Your task to perform on an android device: delete location history Image 0: 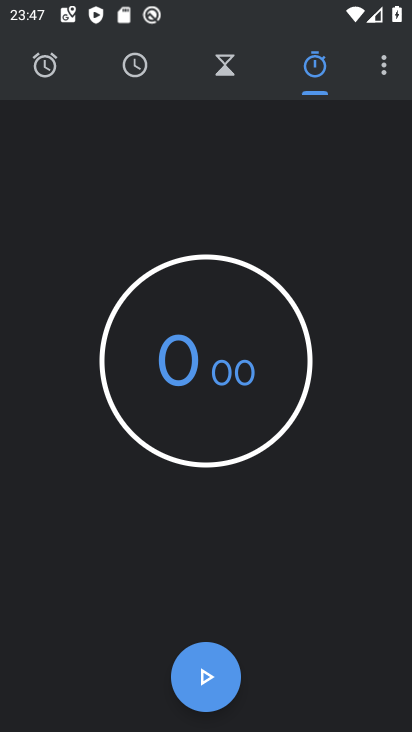
Step 0: press home button
Your task to perform on an android device: delete location history Image 1: 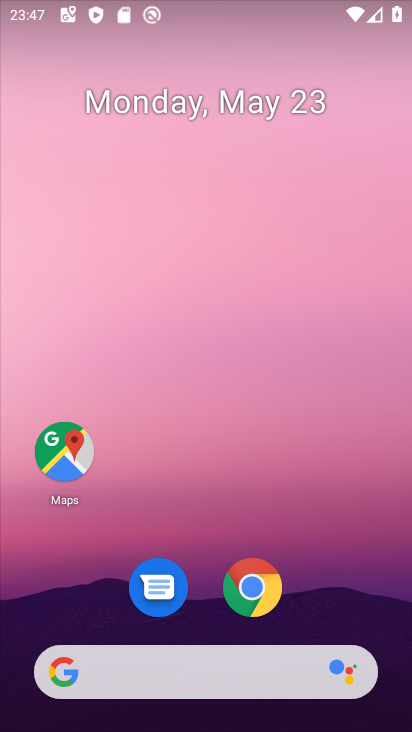
Step 1: drag from (371, 623) to (298, 192)
Your task to perform on an android device: delete location history Image 2: 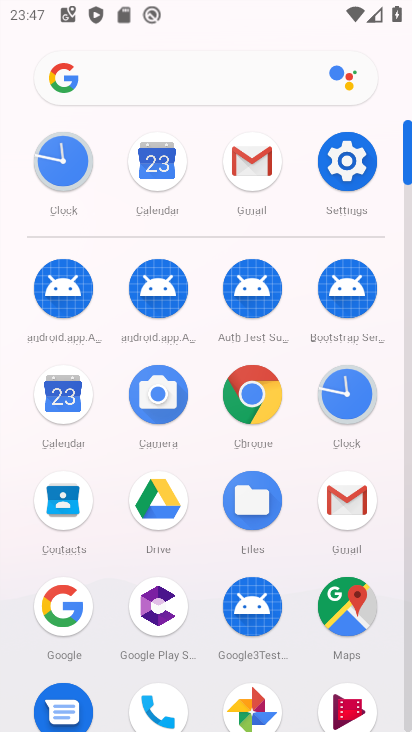
Step 2: click (364, 619)
Your task to perform on an android device: delete location history Image 3: 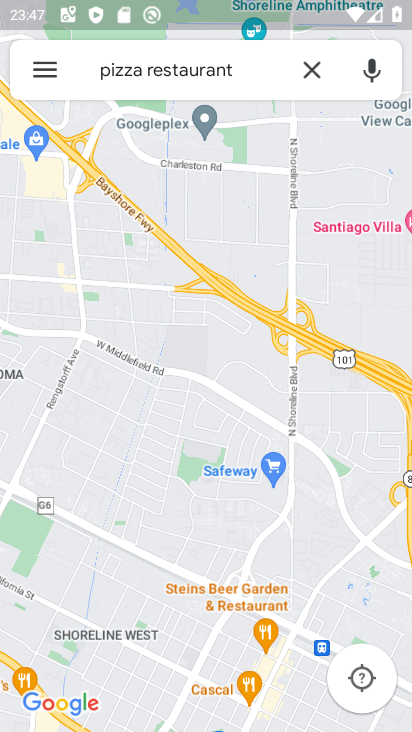
Step 3: click (49, 85)
Your task to perform on an android device: delete location history Image 4: 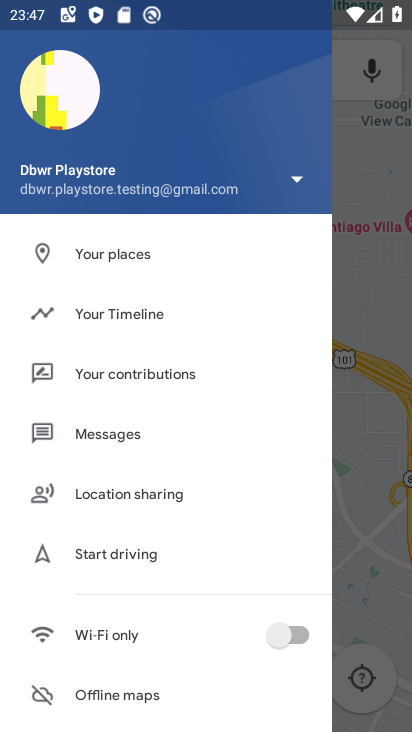
Step 4: click (156, 308)
Your task to perform on an android device: delete location history Image 5: 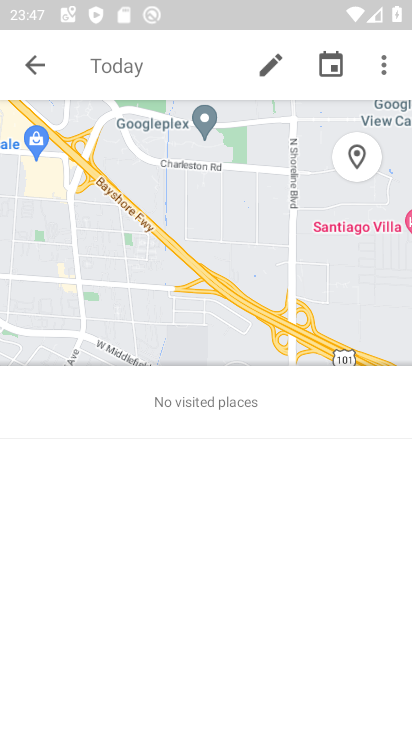
Step 5: click (385, 78)
Your task to perform on an android device: delete location history Image 6: 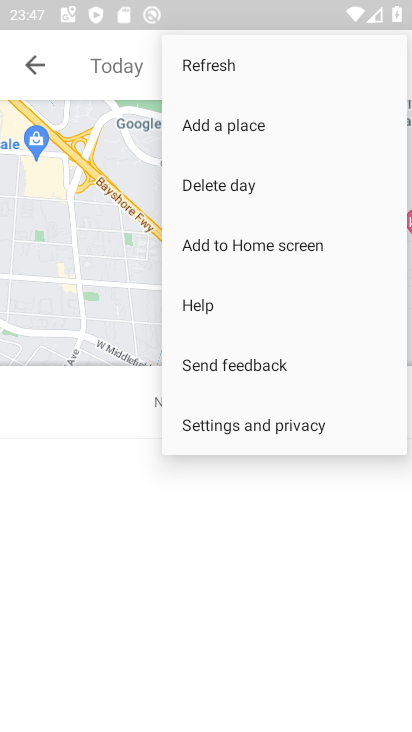
Step 6: click (312, 436)
Your task to perform on an android device: delete location history Image 7: 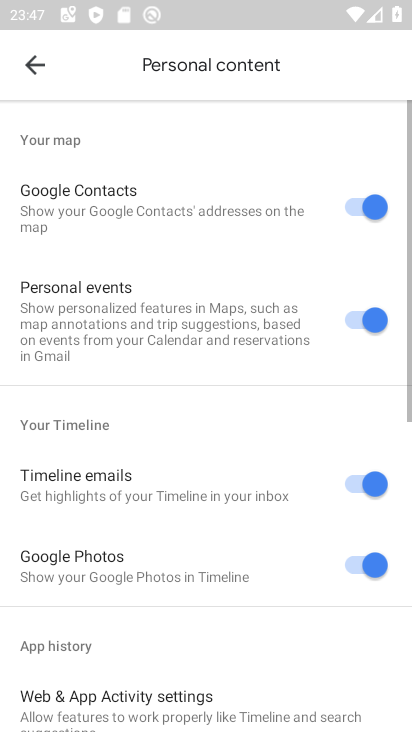
Step 7: drag from (295, 663) to (192, 112)
Your task to perform on an android device: delete location history Image 8: 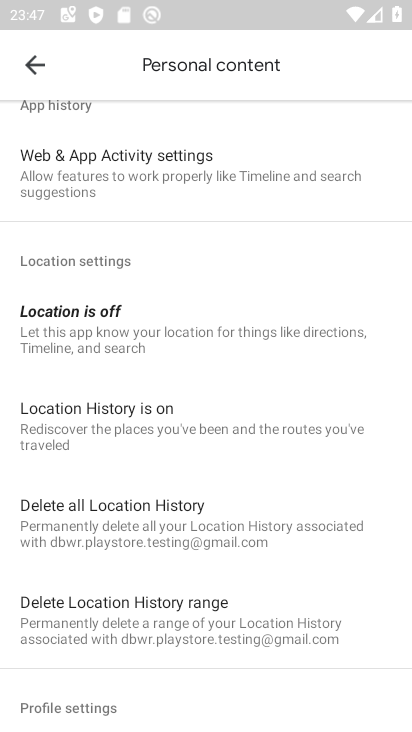
Step 8: click (253, 517)
Your task to perform on an android device: delete location history Image 9: 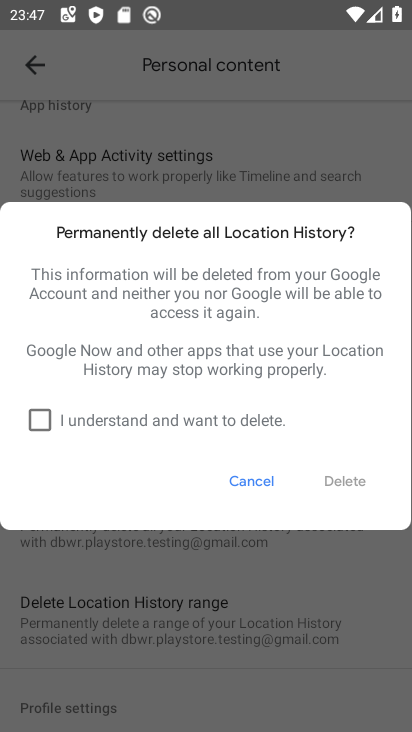
Step 9: click (198, 424)
Your task to perform on an android device: delete location history Image 10: 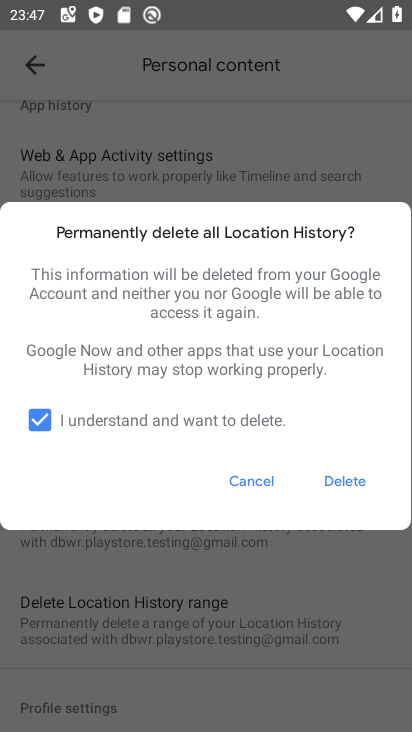
Step 10: click (370, 493)
Your task to perform on an android device: delete location history Image 11: 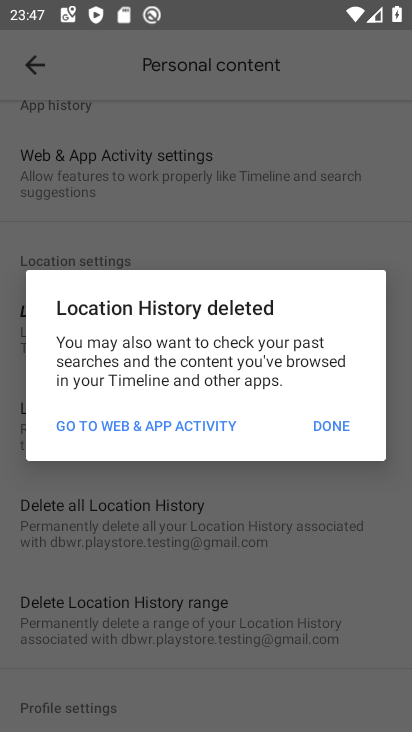
Step 11: click (345, 433)
Your task to perform on an android device: delete location history Image 12: 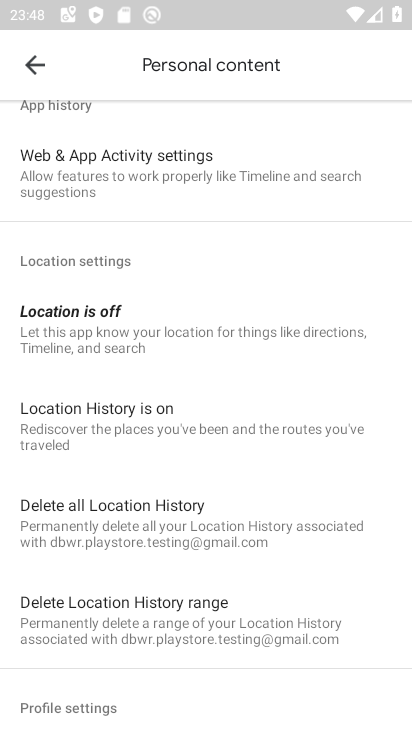
Step 12: task complete